Your task to perform on an android device: check battery use Image 0: 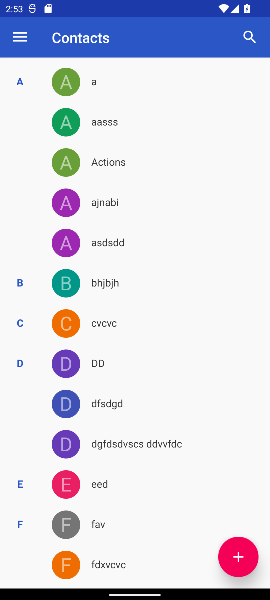
Step 0: press home button
Your task to perform on an android device: check battery use Image 1: 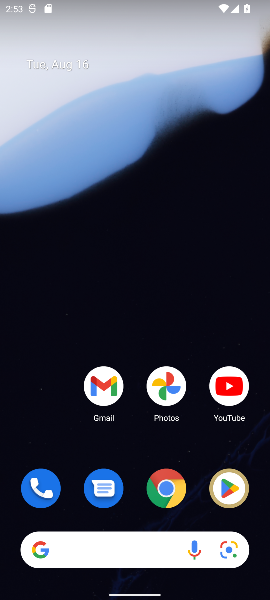
Step 1: drag from (51, 406) to (104, 111)
Your task to perform on an android device: check battery use Image 2: 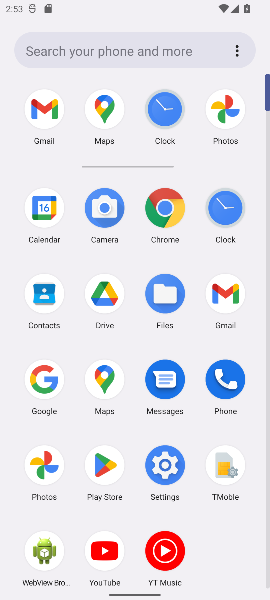
Step 2: click (169, 470)
Your task to perform on an android device: check battery use Image 3: 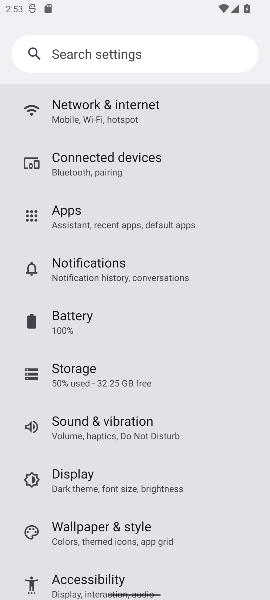
Step 3: click (90, 317)
Your task to perform on an android device: check battery use Image 4: 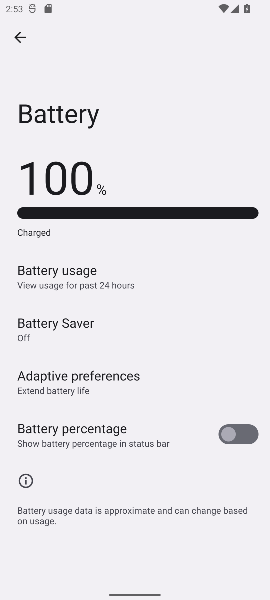
Step 4: task complete